Your task to perform on an android device: Open maps Image 0: 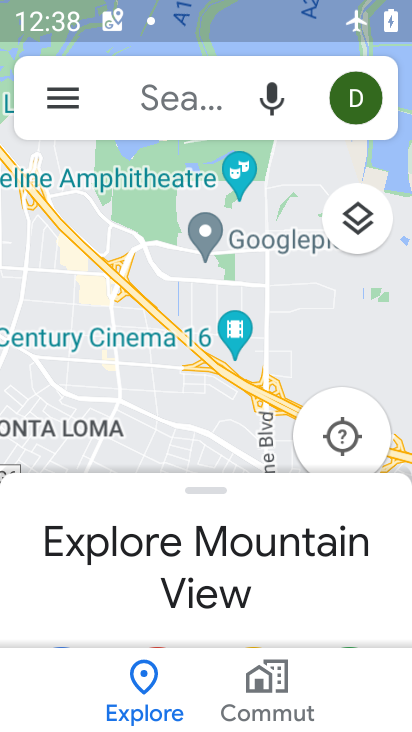
Step 0: task complete